Your task to perform on an android device: uninstall "Google Pay: Save, Pay, Manage" Image 0: 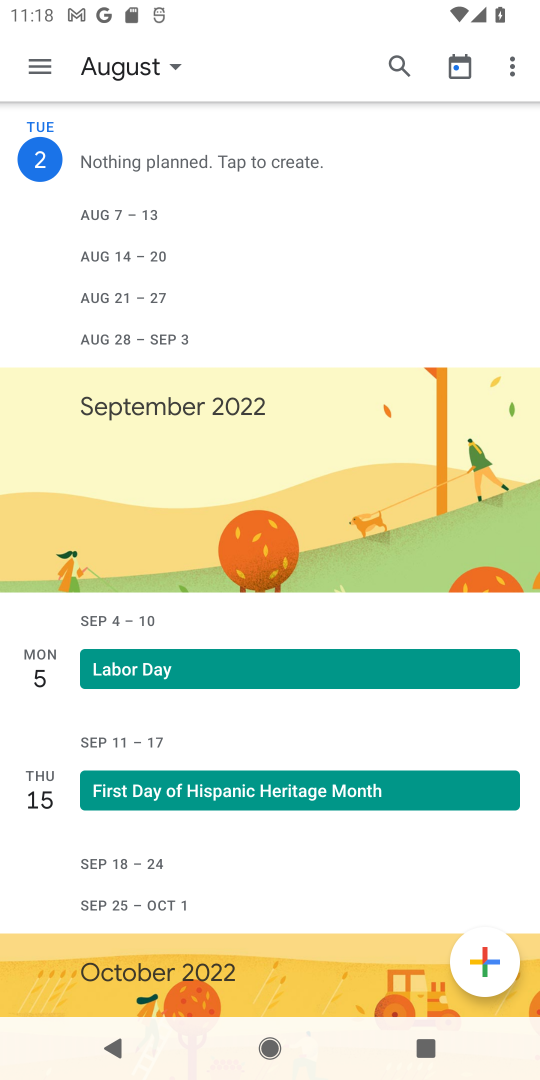
Step 0: press back button
Your task to perform on an android device: uninstall "Google Pay: Save, Pay, Manage" Image 1: 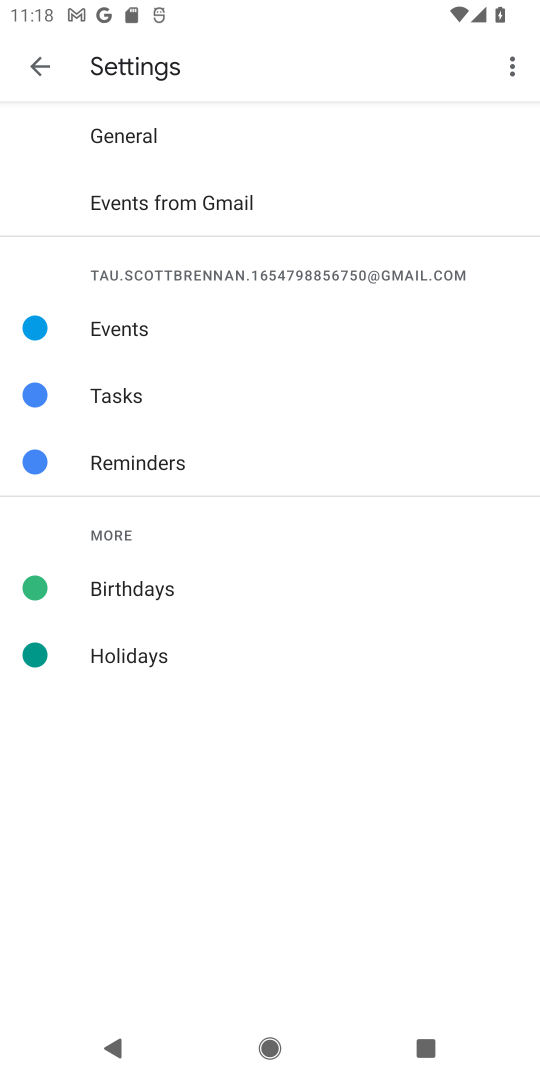
Step 1: press home button
Your task to perform on an android device: uninstall "Google Pay: Save, Pay, Manage" Image 2: 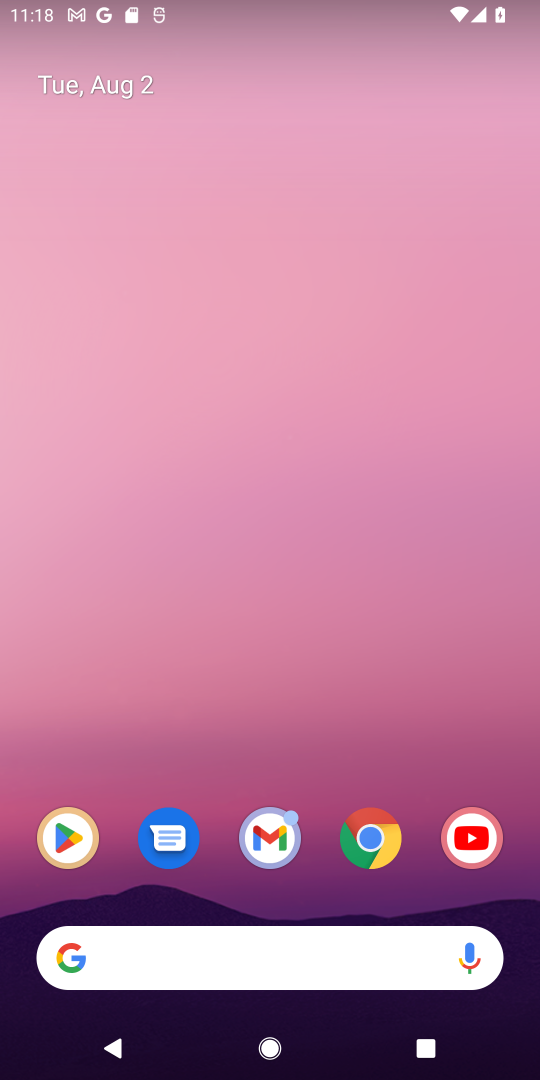
Step 2: click (21, 851)
Your task to perform on an android device: uninstall "Google Pay: Save, Pay, Manage" Image 3: 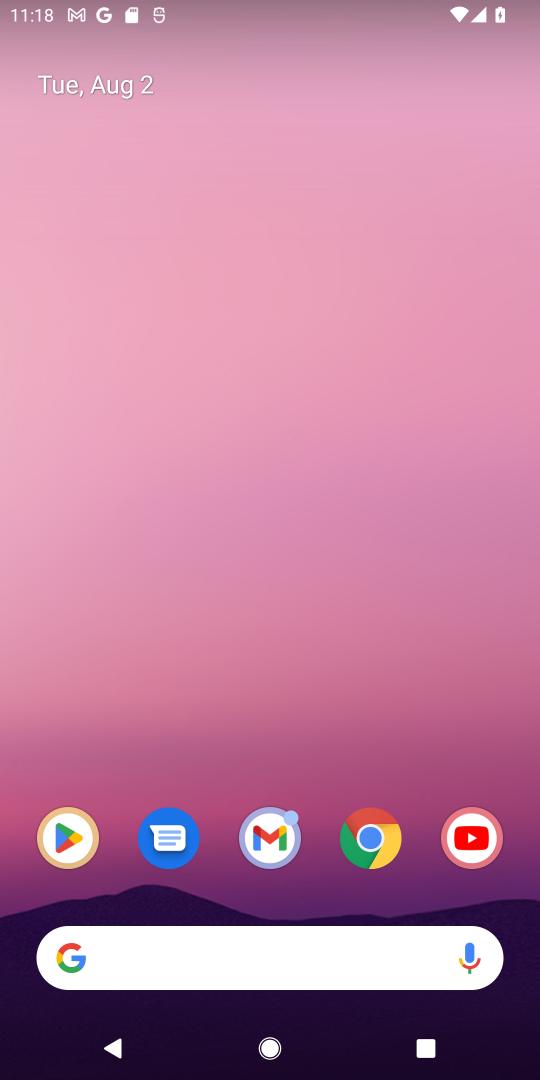
Step 3: click (64, 847)
Your task to perform on an android device: uninstall "Google Pay: Save, Pay, Manage" Image 4: 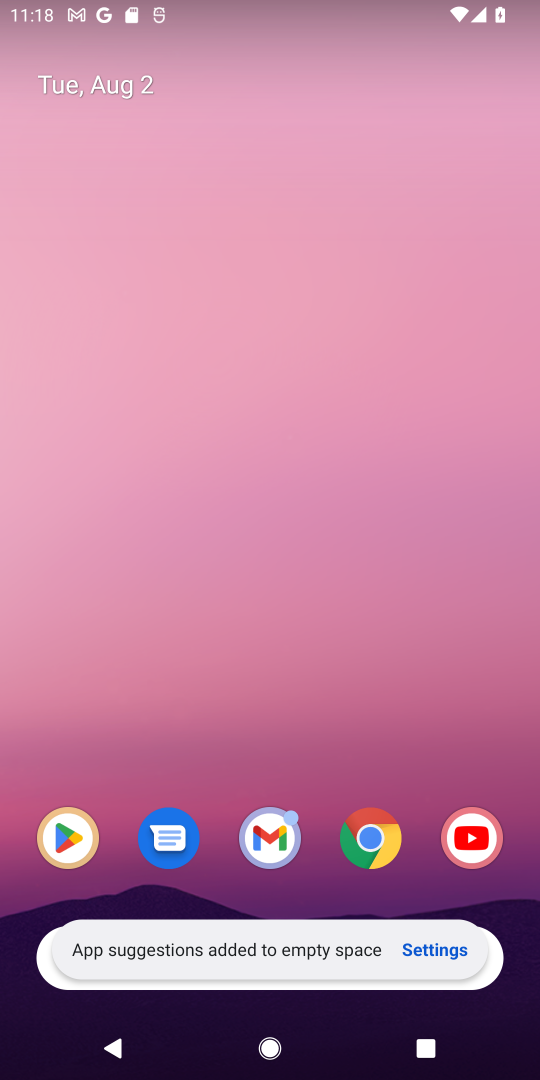
Step 4: click (64, 847)
Your task to perform on an android device: uninstall "Google Pay: Save, Pay, Manage" Image 5: 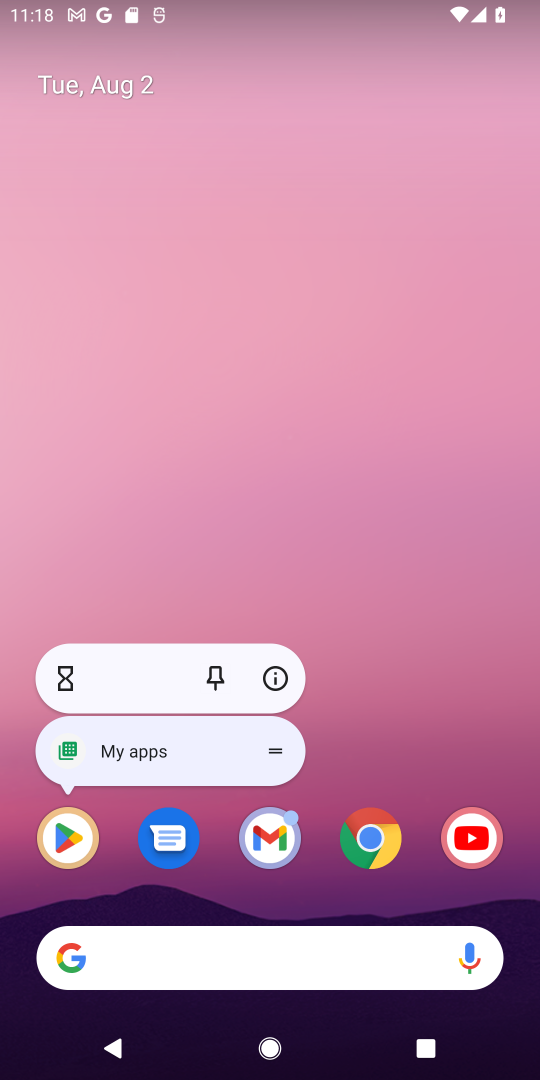
Step 5: click (75, 852)
Your task to perform on an android device: uninstall "Google Pay: Save, Pay, Manage" Image 6: 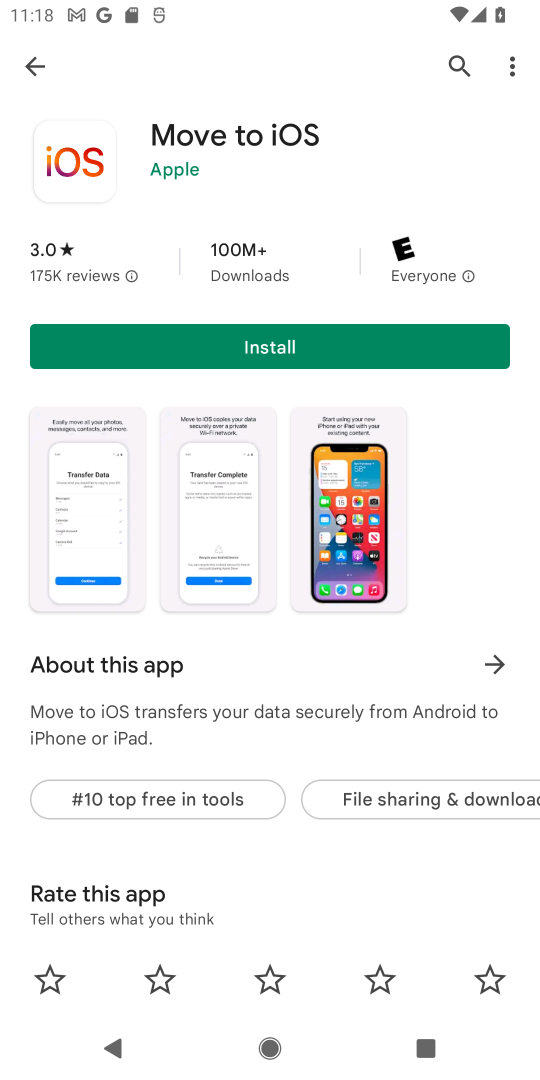
Step 6: click (456, 67)
Your task to perform on an android device: uninstall "Google Pay: Save, Pay, Manage" Image 7: 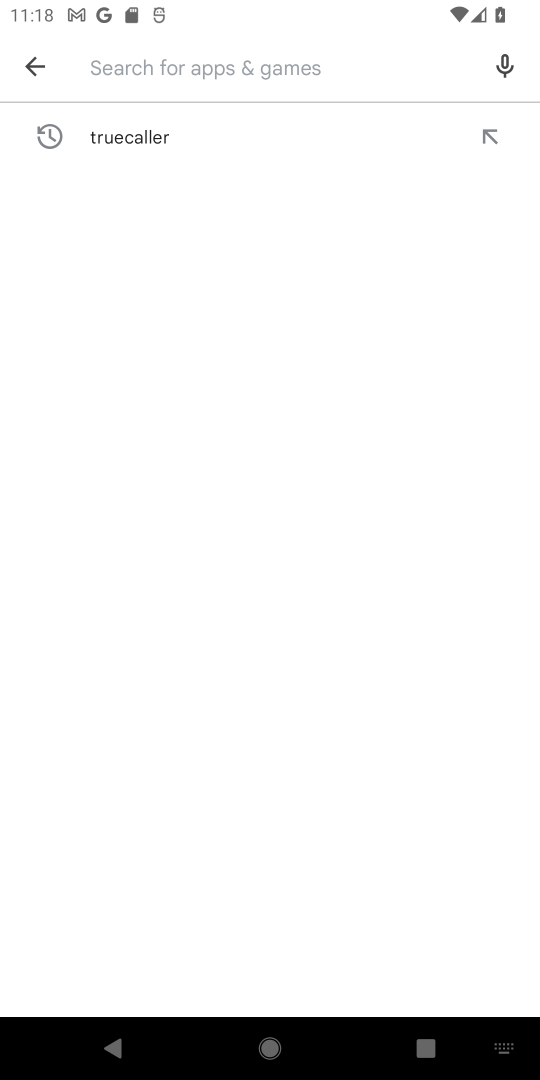
Step 7: type "Google Pay: Save, Pay, Manage"
Your task to perform on an android device: uninstall "Google Pay: Save, Pay, Manage" Image 8: 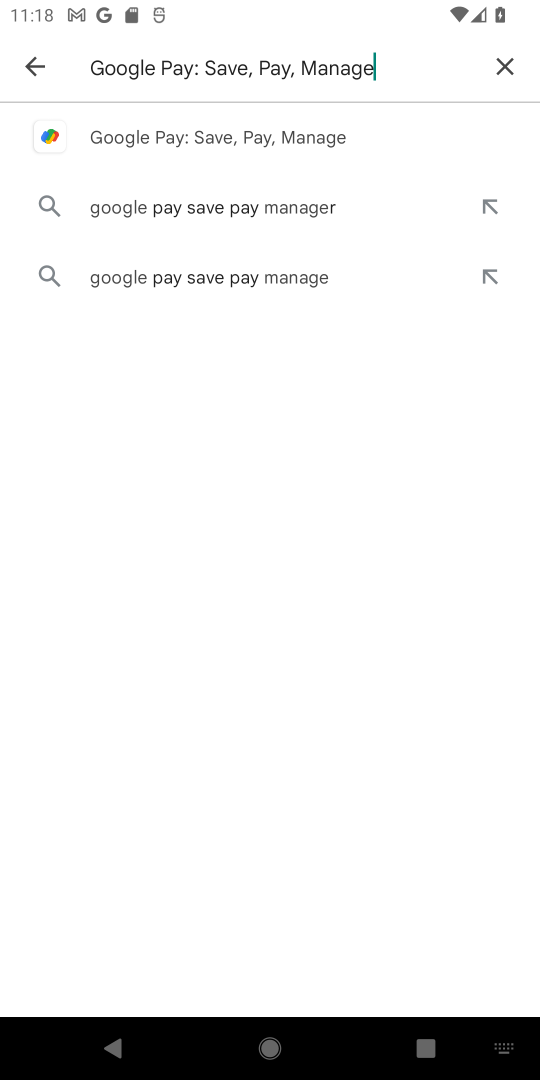
Step 8: click (226, 139)
Your task to perform on an android device: uninstall "Google Pay: Save, Pay, Manage" Image 9: 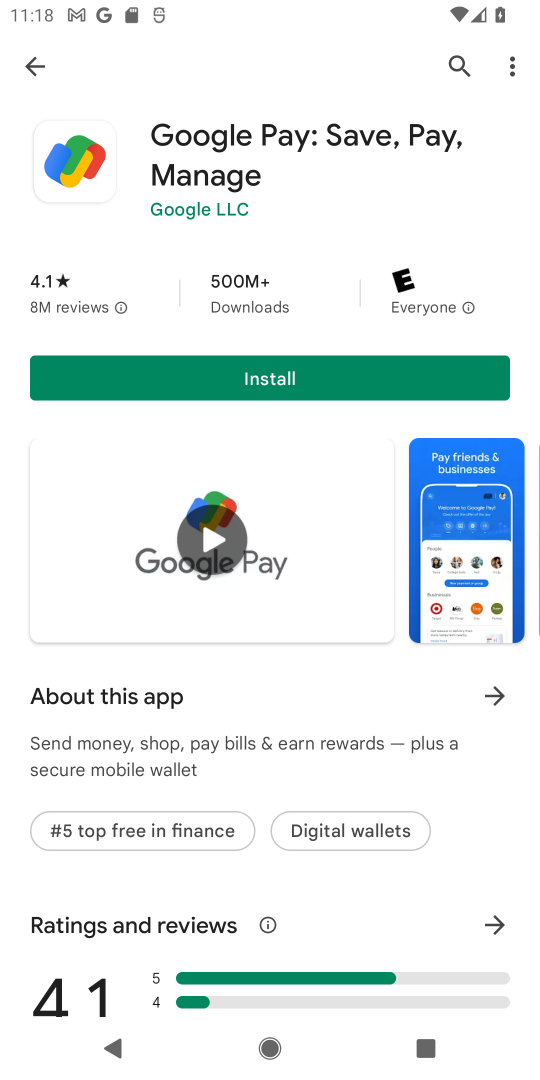
Step 9: task complete